Your task to perform on an android device: Check the settings for the Amazon Music app Image 0: 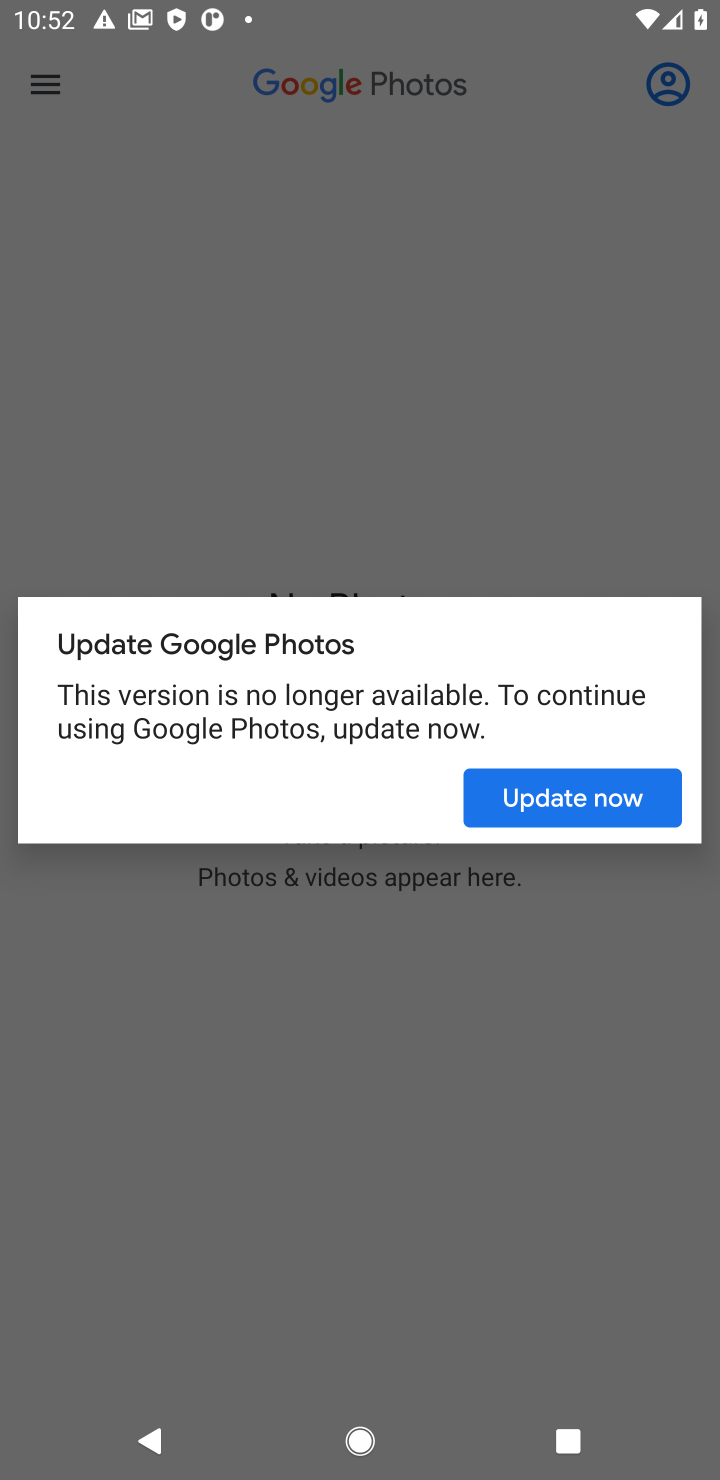
Step 0: press home button
Your task to perform on an android device: Check the settings for the Amazon Music app Image 1: 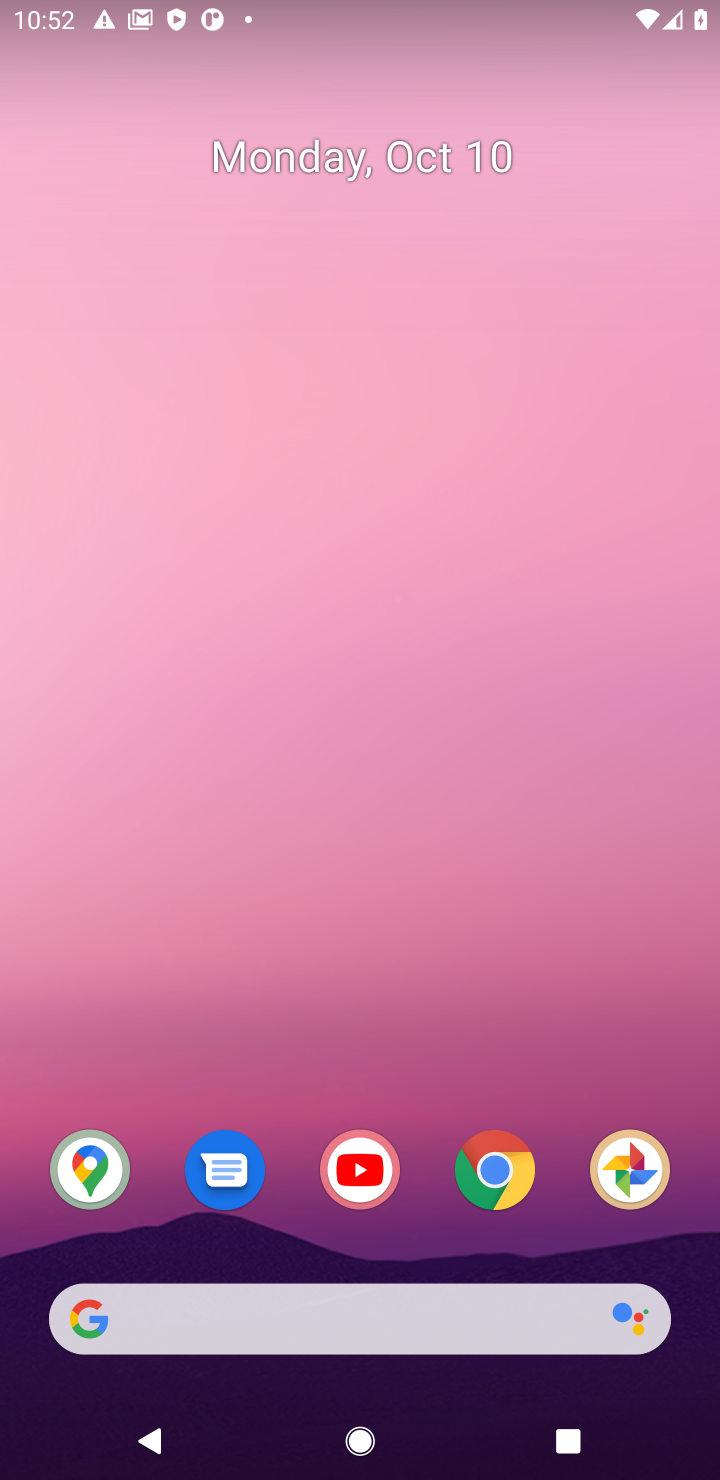
Step 1: task complete